Your task to perform on an android device: Go to network settings Image 0: 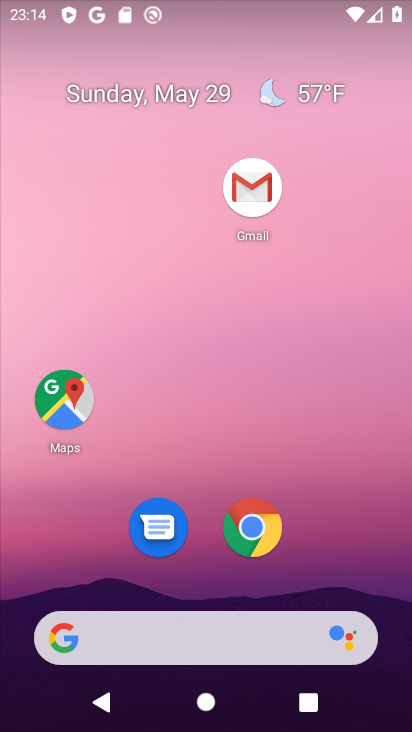
Step 0: drag from (335, 552) to (310, 91)
Your task to perform on an android device: Go to network settings Image 1: 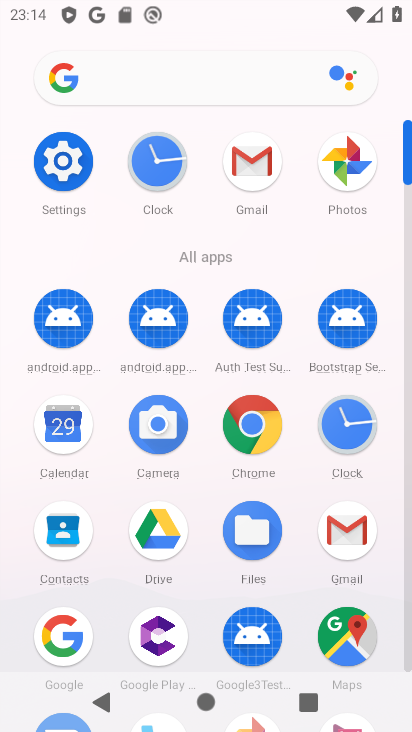
Step 1: click (61, 160)
Your task to perform on an android device: Go to network settings Image 2: 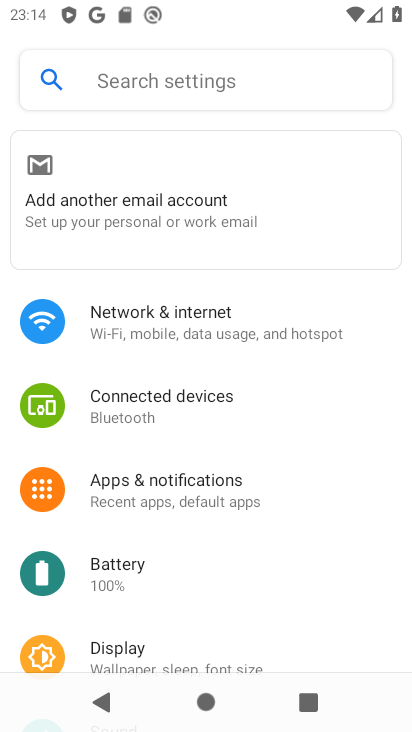
Step 2: click (138, 314)
Your task to perform on an android device: Go to network settings Image 3: 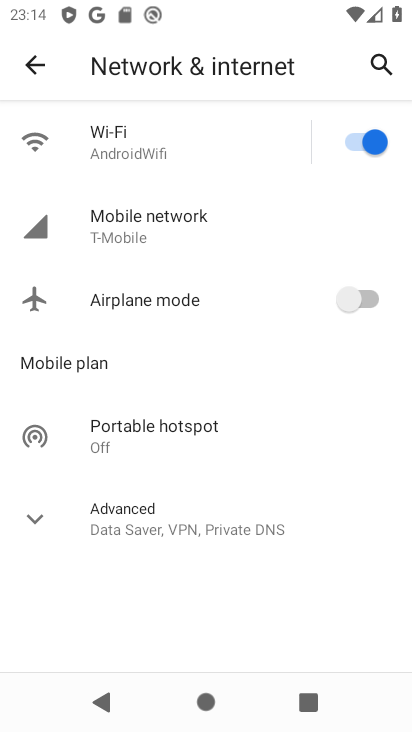
Step 3: click (147, 223)
Your task to perform on an android device: Go to network settings Image 4: 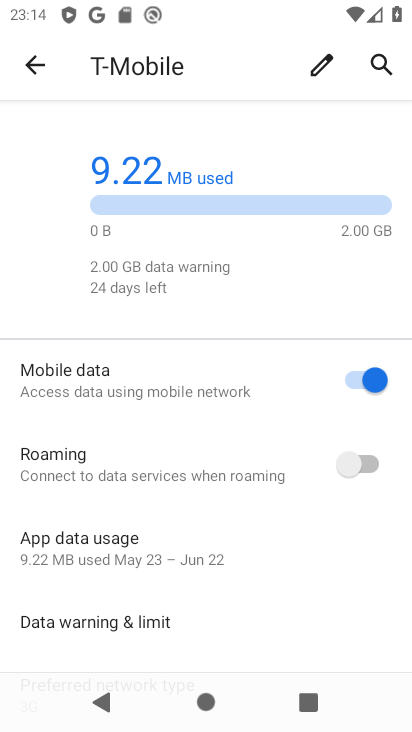
Step 4: task complete